Your task to perform on an android device: turn on notifications settings in the gmail app Image 0: 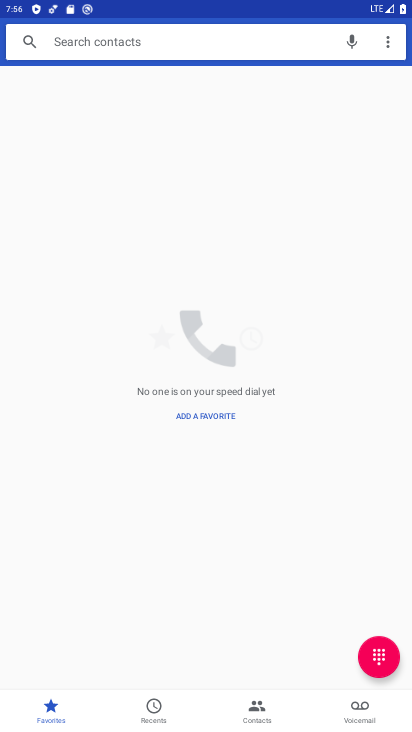
Step 0: press home button
Your task to perform on an android device: turn on notifications settings in the gmail app Image 1: 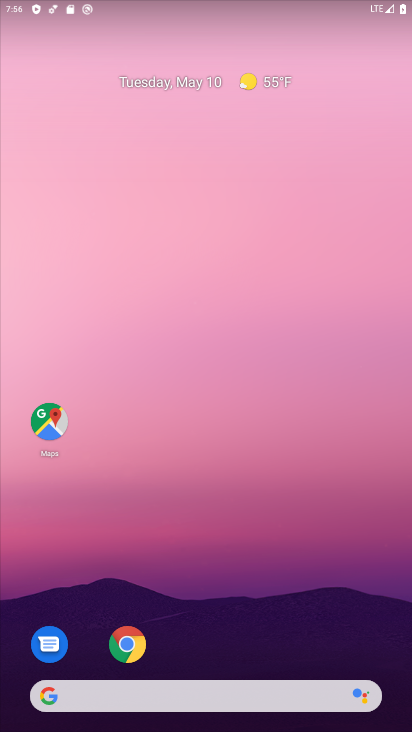
Step 1: drag from (317, 635) to (355, 78)
Your task to perform on an android device: turn on notifications settings in the gmail app Image 2: 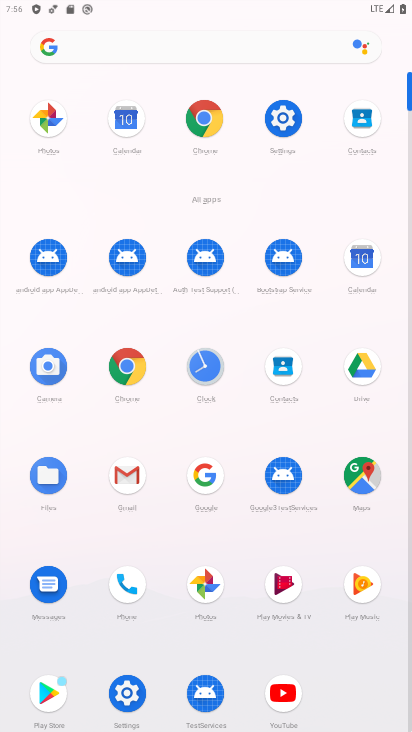
Step 2: drag from (257, 452) to (295, 174)
Your task to perform on an android device: turn on notifications settings in the gmail app Image 3: 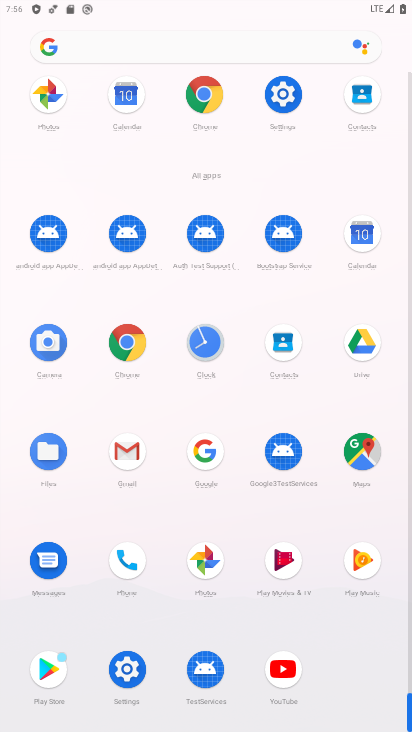
Step 3: click (140, 669)
Your task to perform on an android device: turn on notifications settings in the gmail app Image 4: 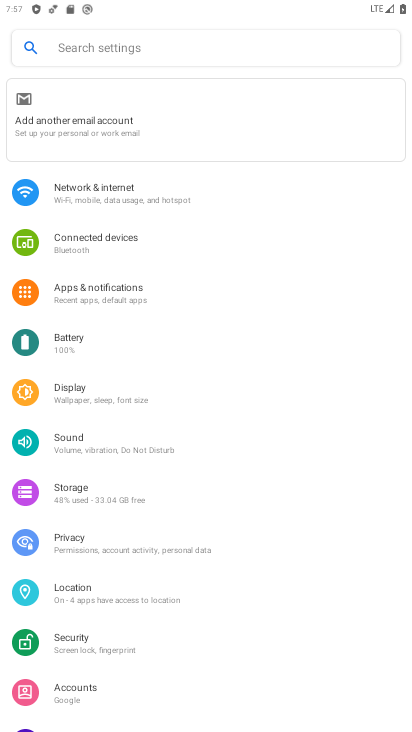
Step 4: press home button
Your task to perform on an android device: turn on notifications settings in the gmail app Image 5: 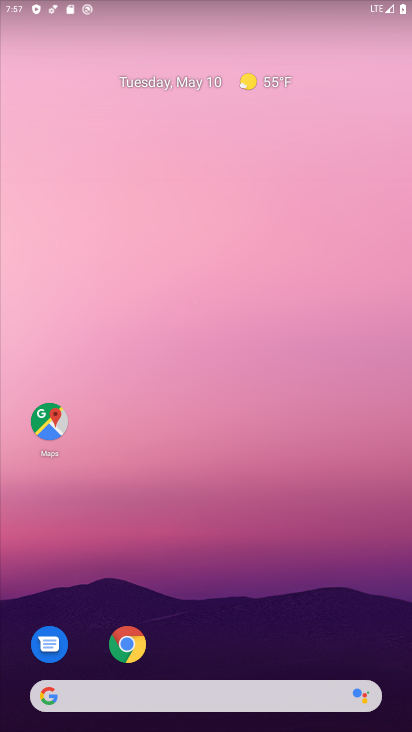
Step 5: drag from (200, 643) to (291, 13)
Your task to perform on an android device: turn on notifications settings in the gmail app Image 6: 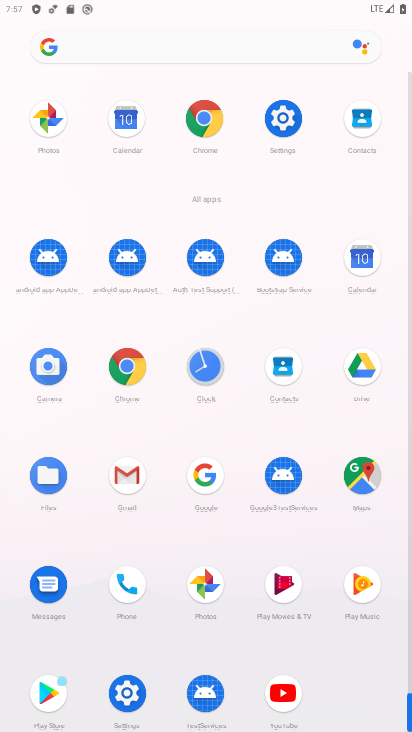
Step 6: click (134, 495)
Your task to perform on an android device: turn on notifications settings in the gmail app Image 7: 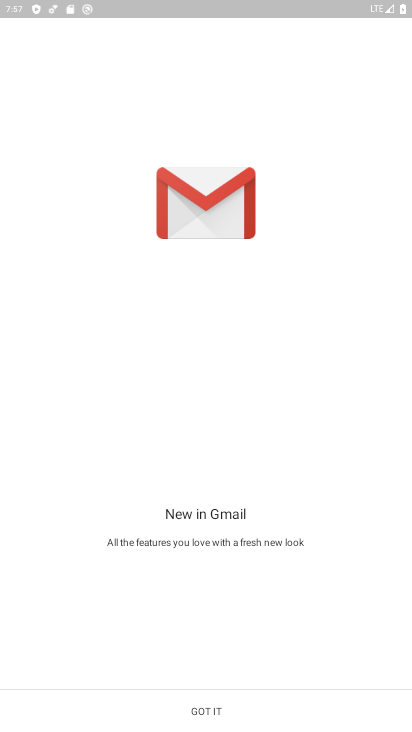
Step 7: click (216, 716)
Your task to perform on an android device: turn on notifications settings in the gmail app Image 8: 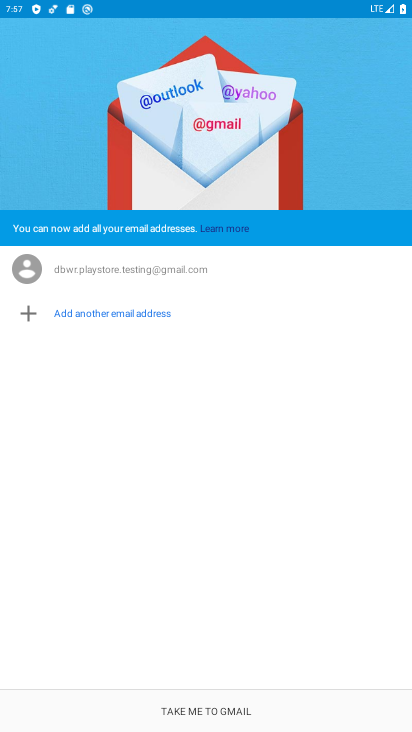
Step 8: click (164, 708)
Your task to perform on an android device: turn on notifications settings in the gmail app Image 9: 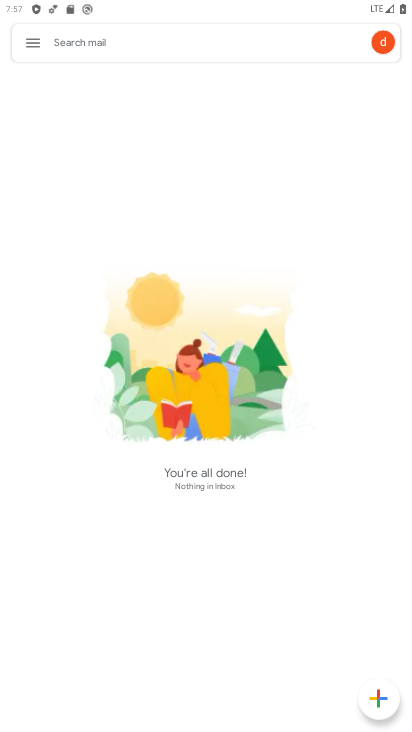
Step 9: click (42, 44)
Your task to perform on an android device: turn on notifications settings in the gmail app Image 10: 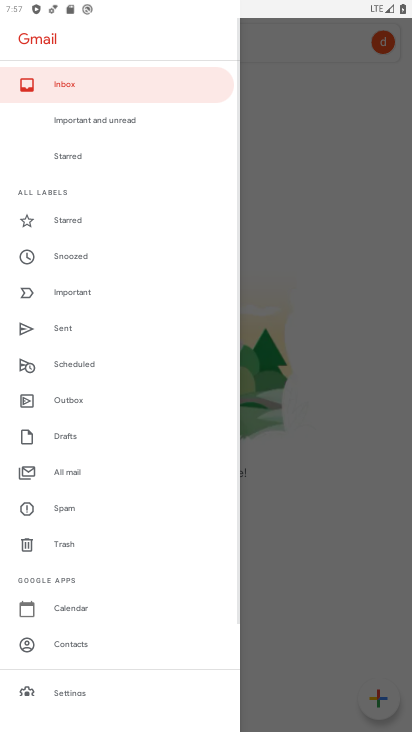
Step 10: drag from (76, 675) to (148, 268)
Your task to perform on an android device: turn on notifications settings in the gmail app Image 11: 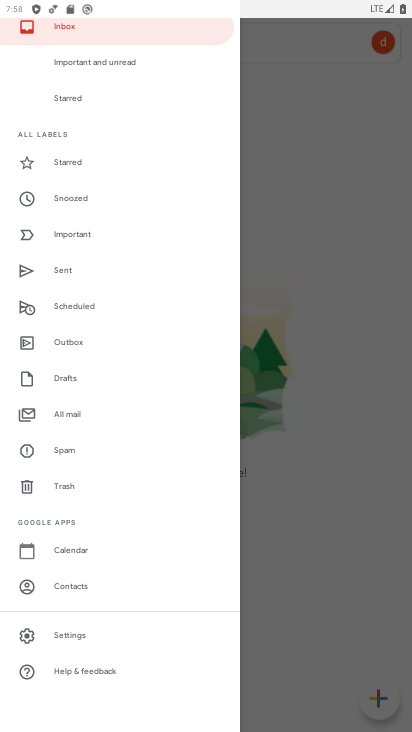
Step 11: click (76, 624)
Your task to perform on an android device: turn on notifications settings in the gmail app Image 12: 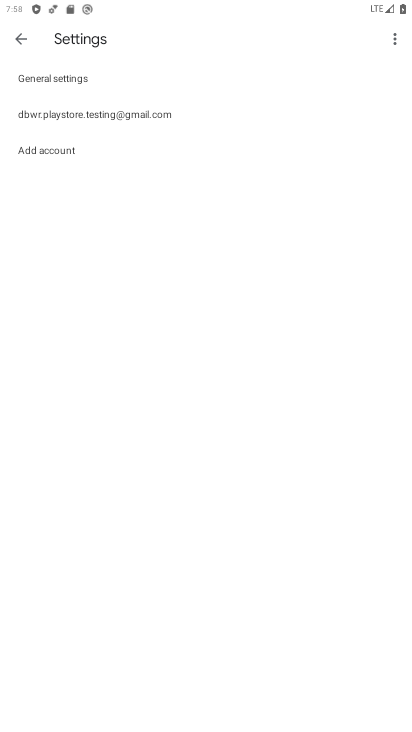
Step 12: click (76, 81)
Your task to perform on an android device: turn on notifications settings in the gmail app Image 13: 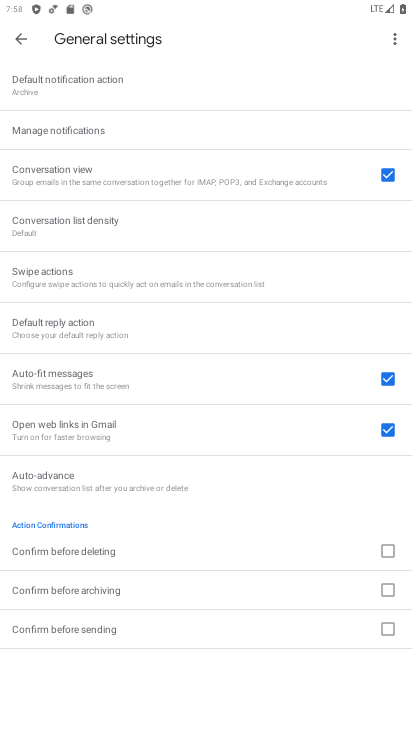
Step 13: click (133, 130)
Your task to perform on an android device: turn on notifications settings in the gmail app Image 14: 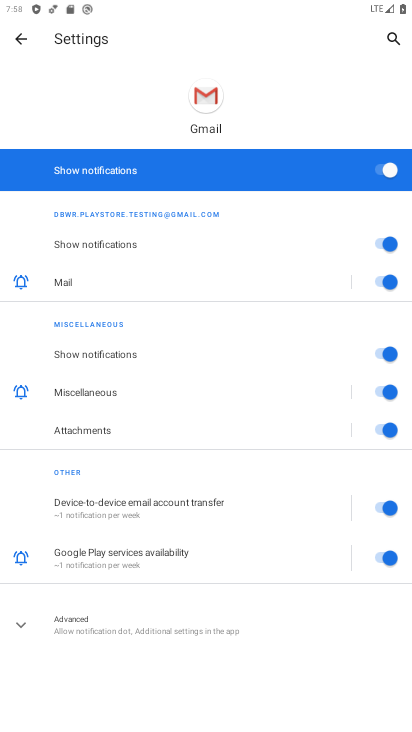
Step 14: task complete